Your task to perform on an android device: Show me productivity apps on the Play Store Image 0: 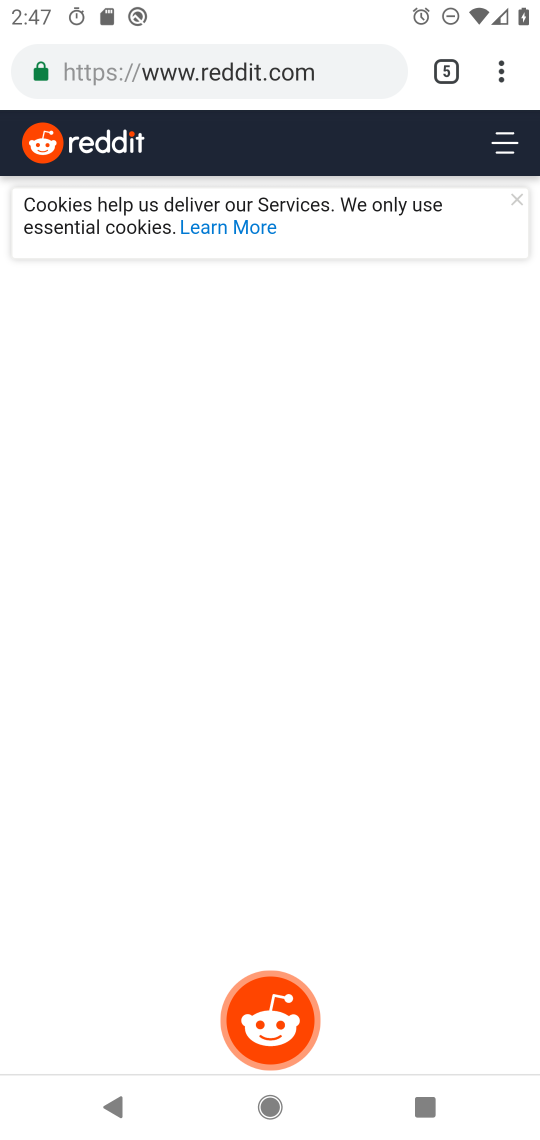
Step 0: press home button
Your task to perform on an android device: Show me productivity apps on the Play Store Image 1: 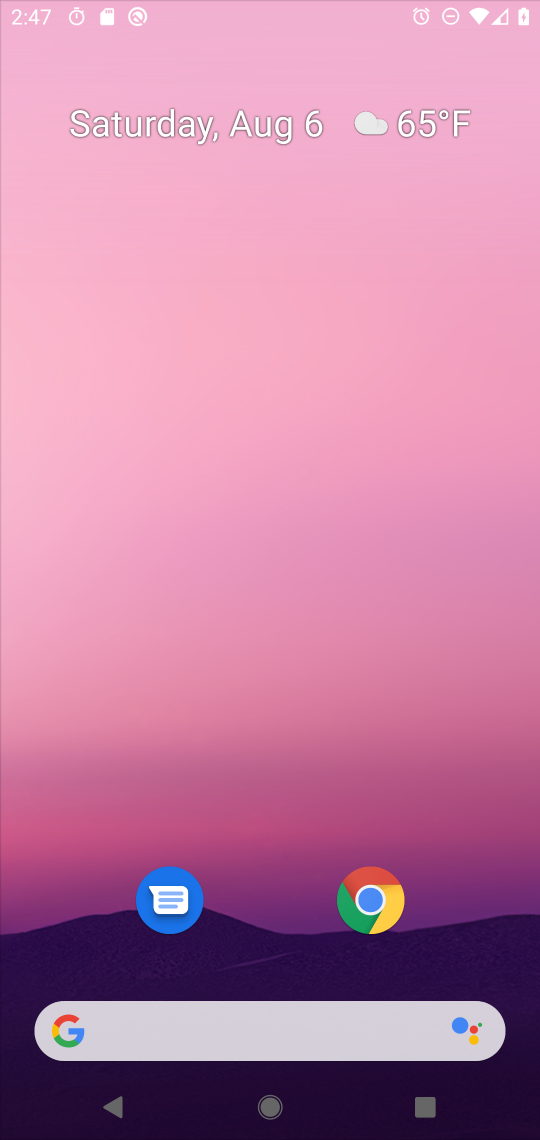
Step 1: press home button
Your task to perform on an android device: Show me productivity apps on the Play Store Image 2: 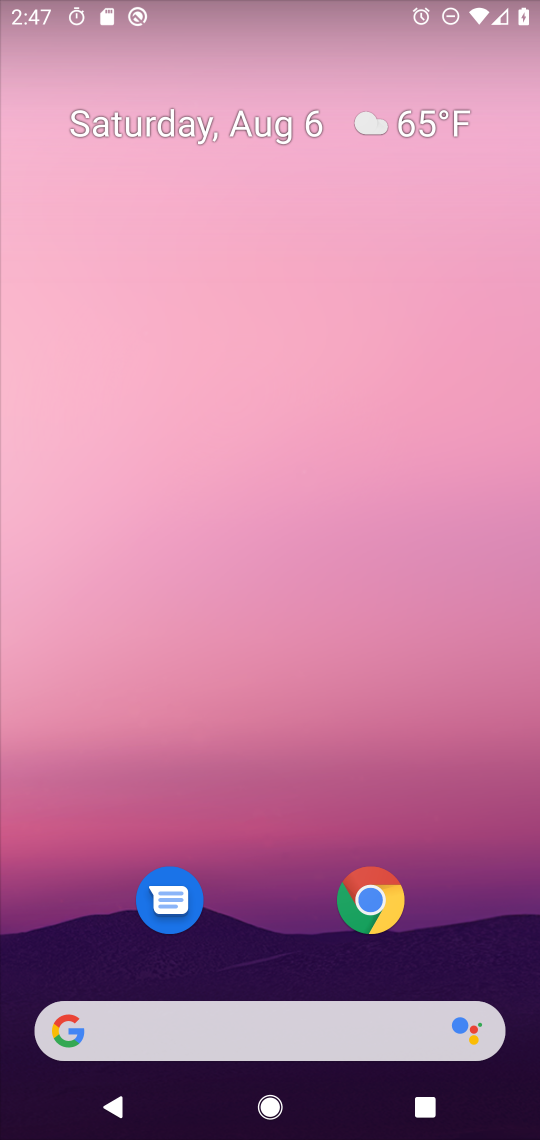
Step 2: drag from (272, 933) to (257, 213)
Your task to perform on an android device: Show me productivity apps on the Play Store Image 3: 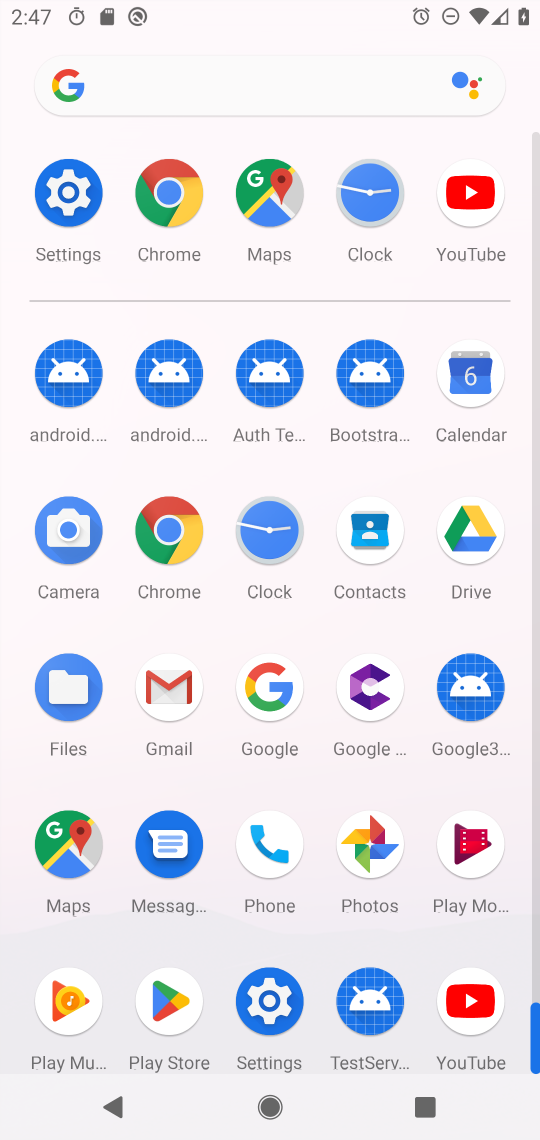
Step 3: click (168, 1010)
Your task to perform on an android device: Show me productivity apps on the Play Store Image 4: 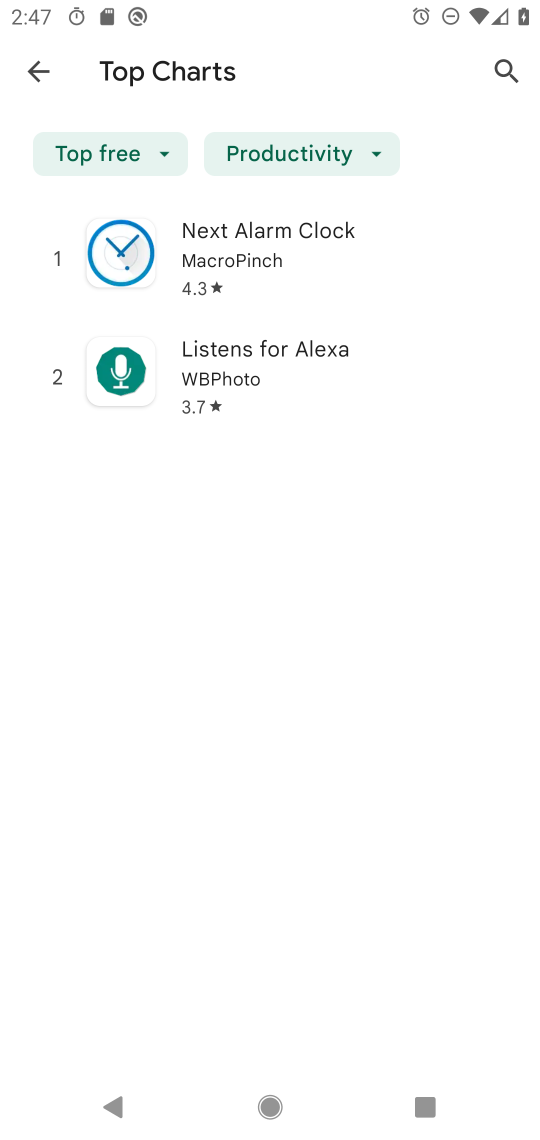
Step 4: click (43, 75)
Your task to perform on an android device: Show me productivity apps on the Play Store Image 5: 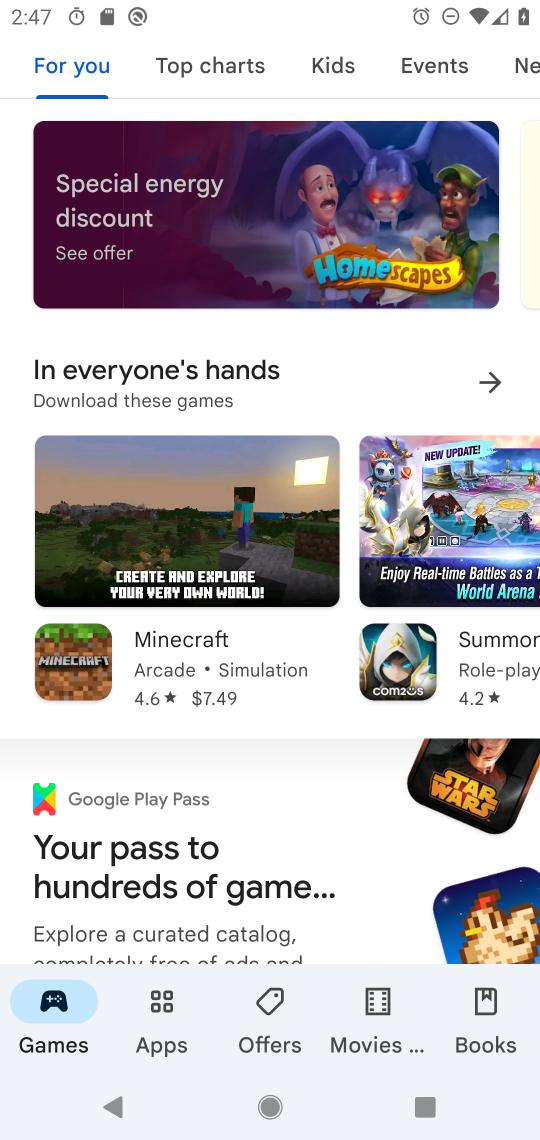
Step 5: click (172, 1022)
Your task to perform on an android device: Show me productivity apps on the Play Store Image 6: 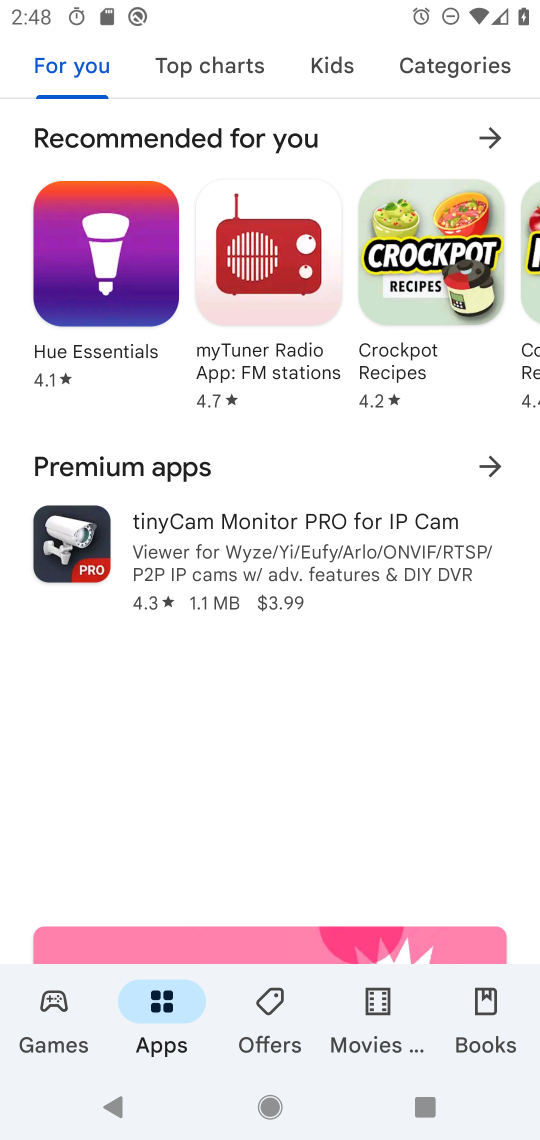
Step 6: click (454, 67)
Your task to perform on an android device: Show me productivity apps on the Play Store Image 7: 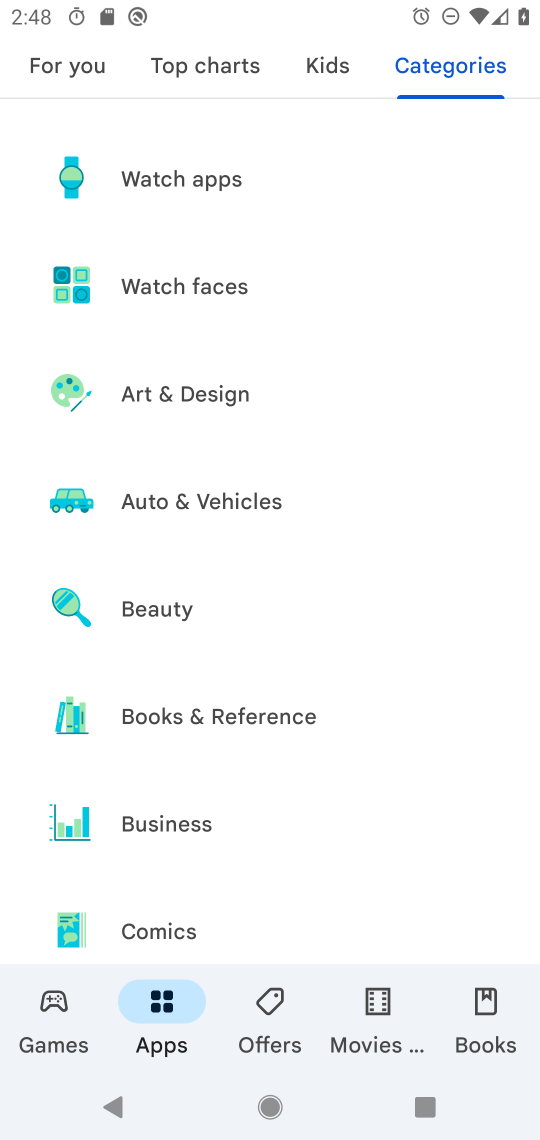
Step 7: drag from (175, 917) to (230, 343)
Your task to perform on an android device: Show me productivity apps on the Play Store Image 8: 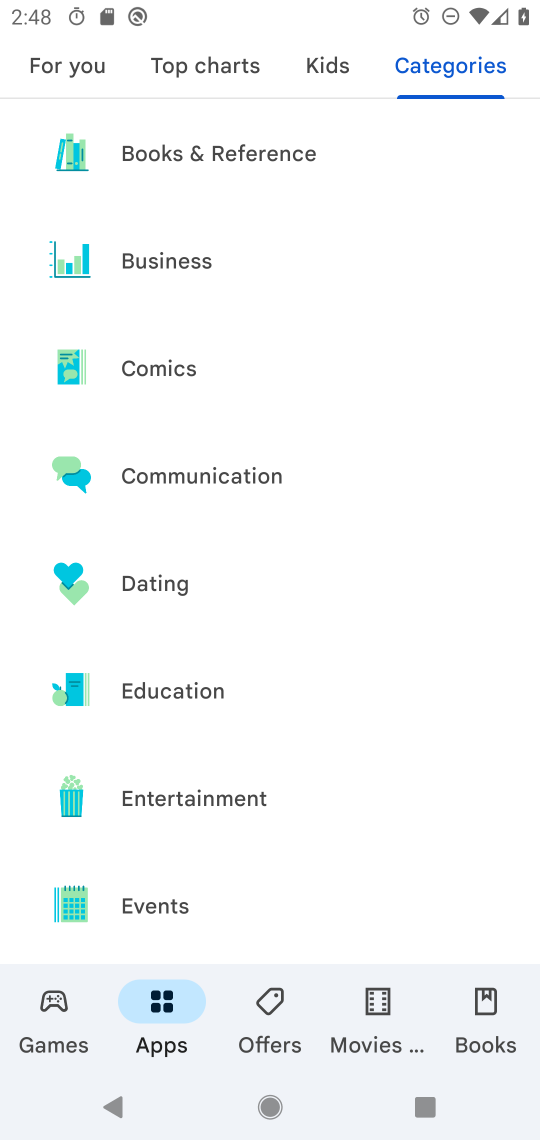
Step 8: drag from (197, 837) to (231, 346)
Your task to perform on an android device: Show me productivity apps on the Play Store Image 9: 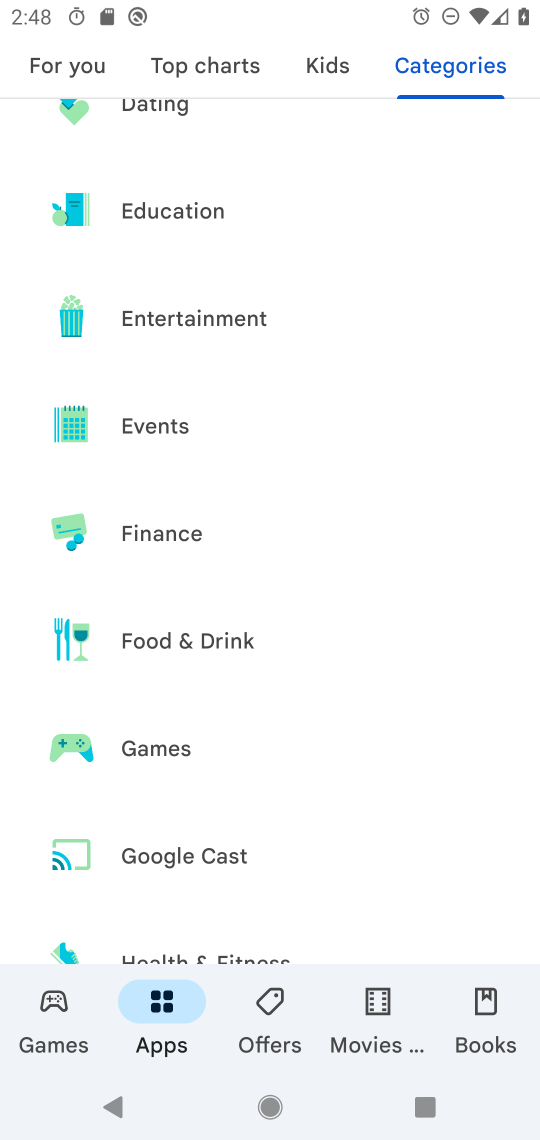
Step 9: drag from (208, 910) to (223, 312)
Your task to perform on an android device: Show me productivity apps on the Play Store Image 10: 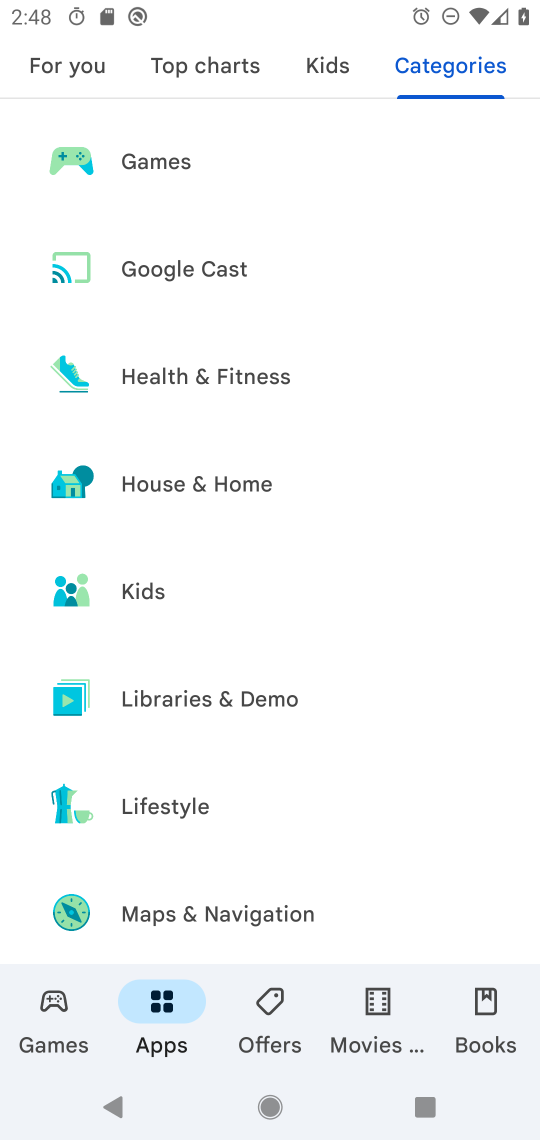
Step 10: drag from (248, 875) to (245, 377)
Your task to perform on an android device: Show me productivity apps on the Play Store Image 11: 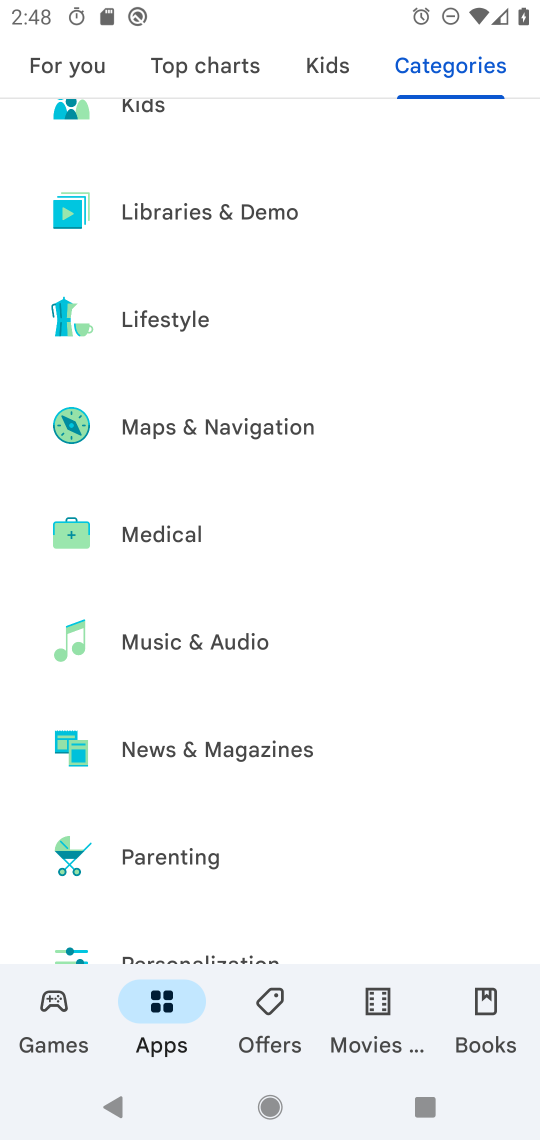
Step 11: drag from (245, 912) to (244, 527)
Your task to perform on an android device: Show me productivity apps on the Play Store Image 12: 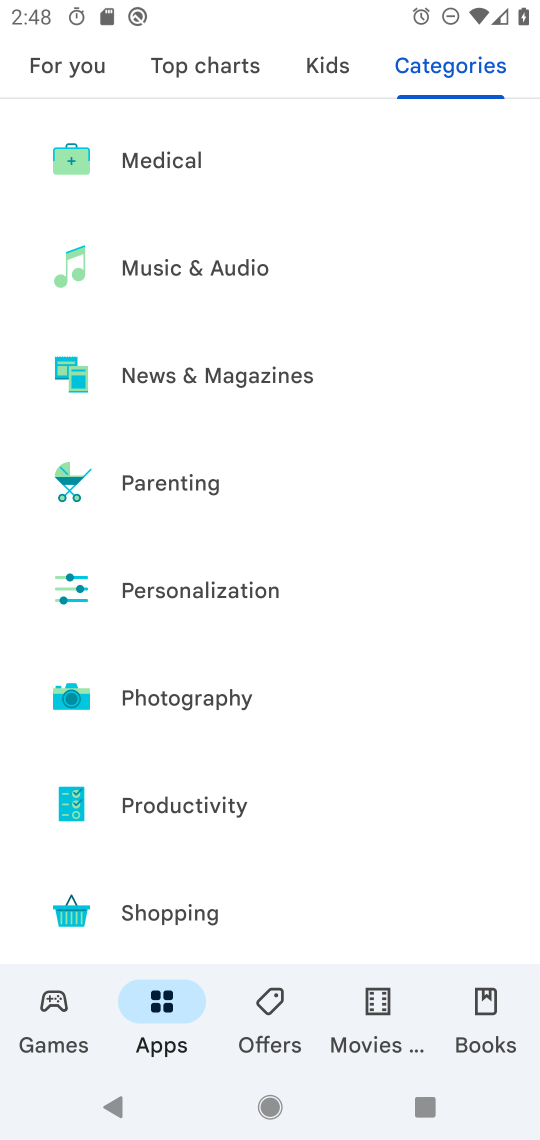
Step 12: click (158, 810)
Your task to perform on an android device: Show me productivity apps on the Play Store Image 13: 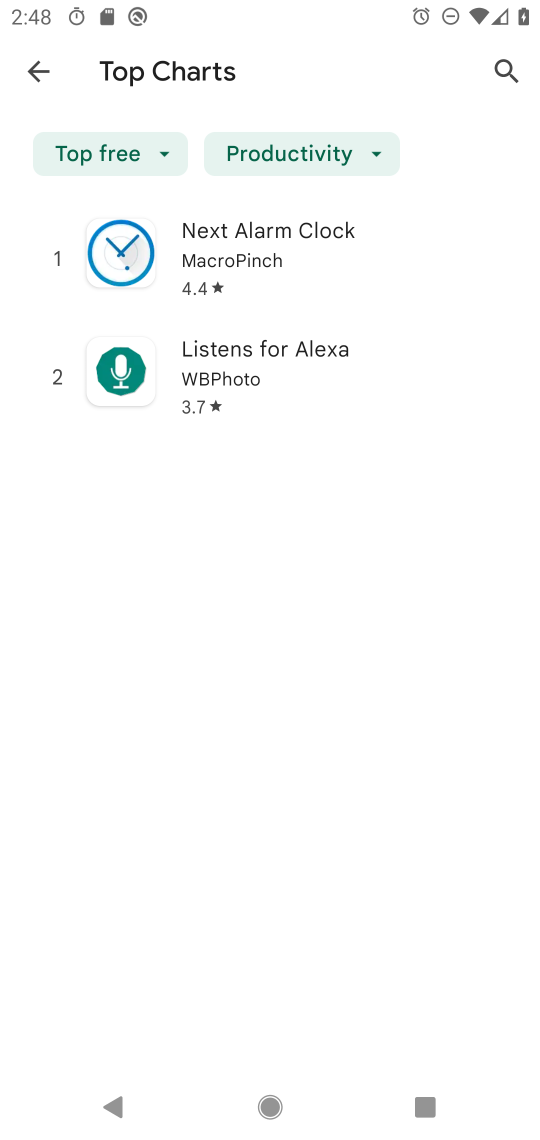
Step 13: task complete